Your task to perform on an android device: turn off picture-in-picture Image 0: 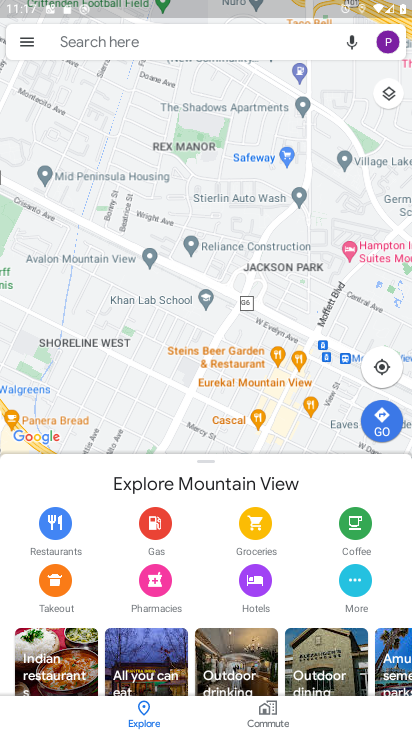
Step 0: task complete